Your task to perform on an android device: empty trash in google photos Image 0: 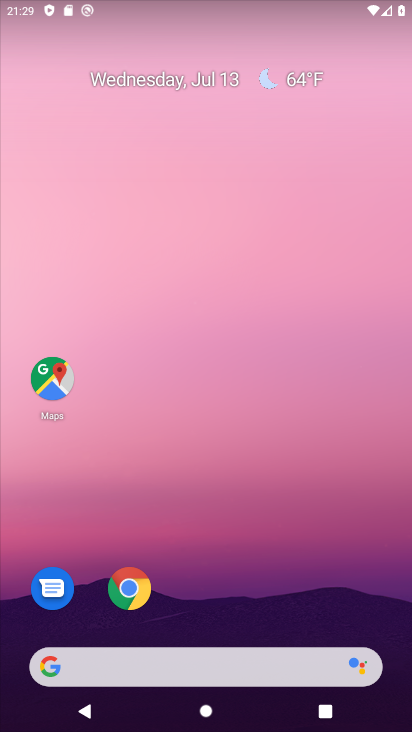
Step 0: drag from (266, 621) to (292, 97)
Your task to perform on an android device: empty trash in google photos Image 1: 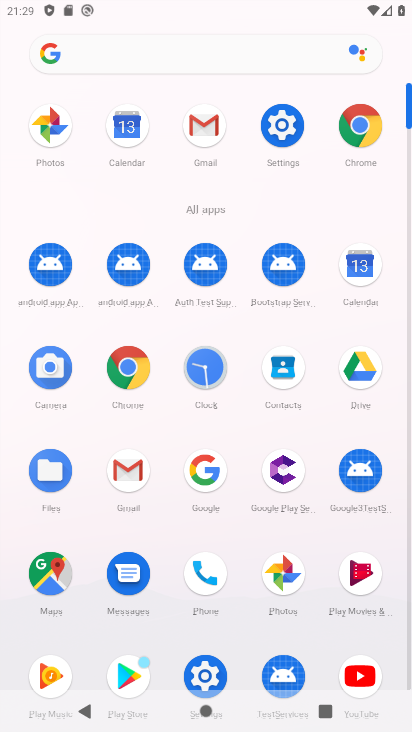
Step 1: click (268, 573)
Your task to perform on an android device: empty trash in google photos Image 2: 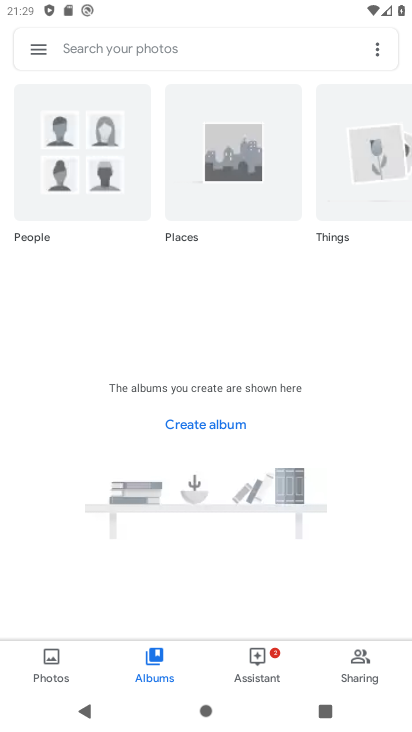
Step 2: click (47, 49)
Your task to perform on an android device: empty trash in google photos Image 3: 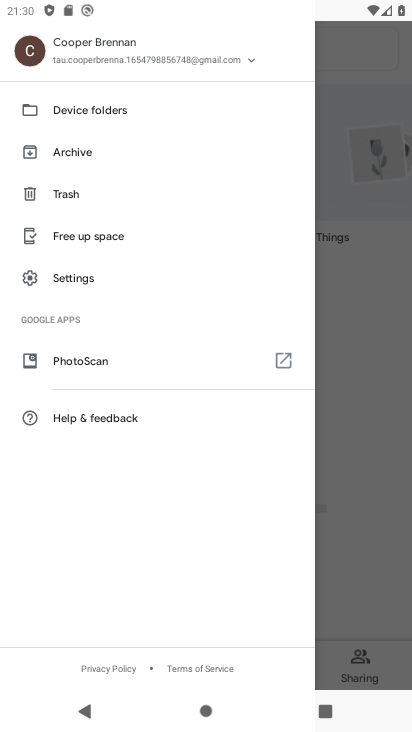
Step 3: click (62, 196)
Your task to perform on an android device: empty trash in google photos Image 4: 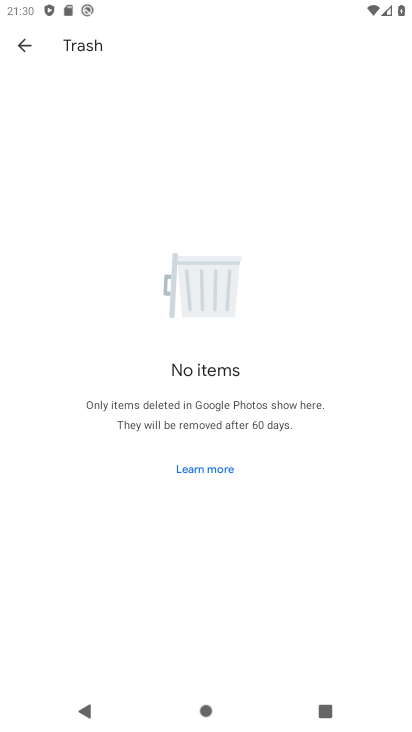
Step 4: task complete